Your task to perform on an android device: toggle show notifications on the lock screen Image 0: 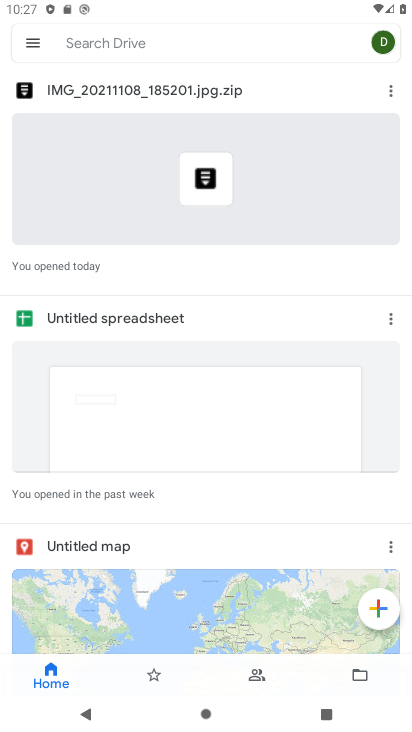
Step 0: press home button
Your task to perform on an android device: toggle show notifications on the lock screen Image 1: 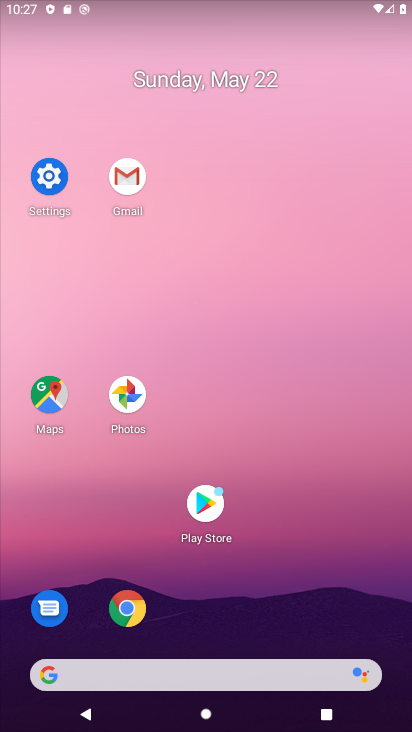
Step 1: click (50, 182)
Your task to perform on an android device: toggle show notifications on the lock screen Image 2: 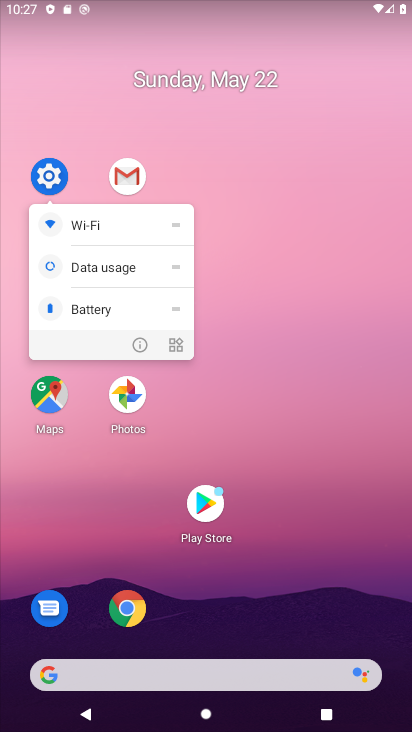
Step 2: click (49, 174)
Your task to perform on an android device: toggle show notifications on the lock screen Image 3: 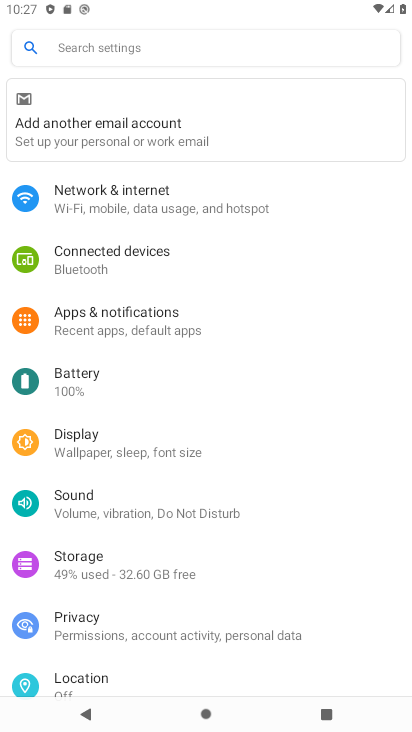
Step 3: click (198, 320)
Your task to perform on an android device: toggle show notifications on the lock screen Image 4: 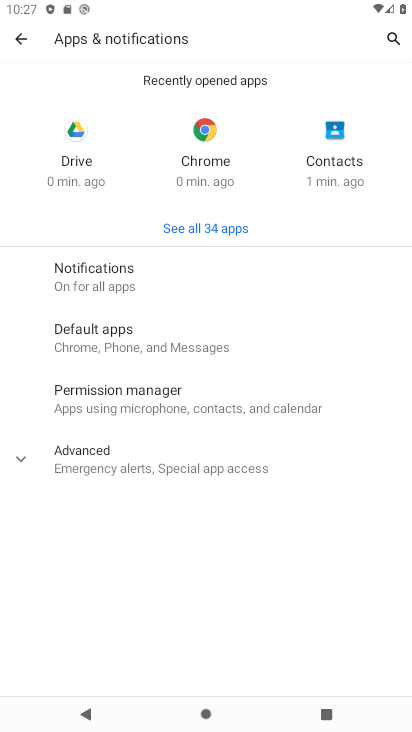
Step 4: click (127, 282)
Your task to perform on an android device: toggle show notifications on the lock screen Image 5: 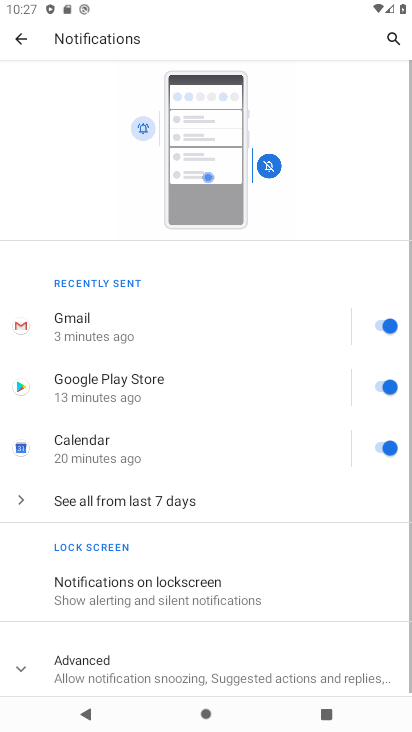
Step 5: drag from (176, 611) to (165, 260)
Your task to perform on an android device: toggle show notifications on the lock screen Image 6: 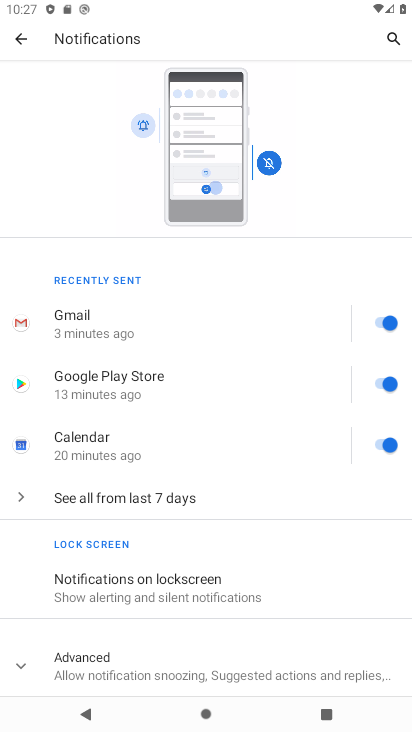
Step 6: click (148, 673)
Your task to perform on an android device: toggle show notifications on the lock screen Image 7: 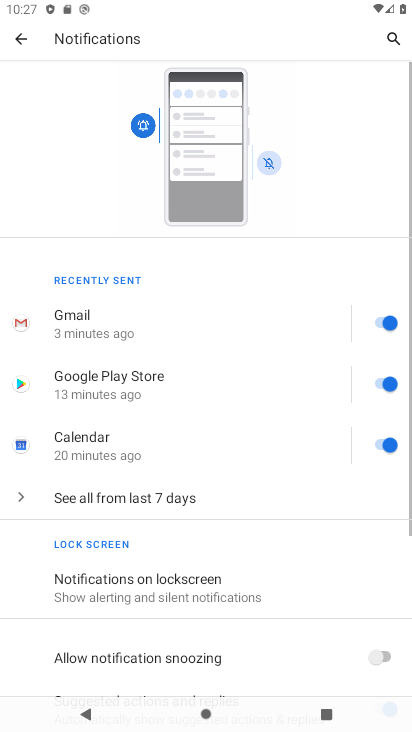
Step 7: drag from (154, 652) to (143, 263)
Your task to perform on an android device: toggle show notifications on the lock screen Image 8: 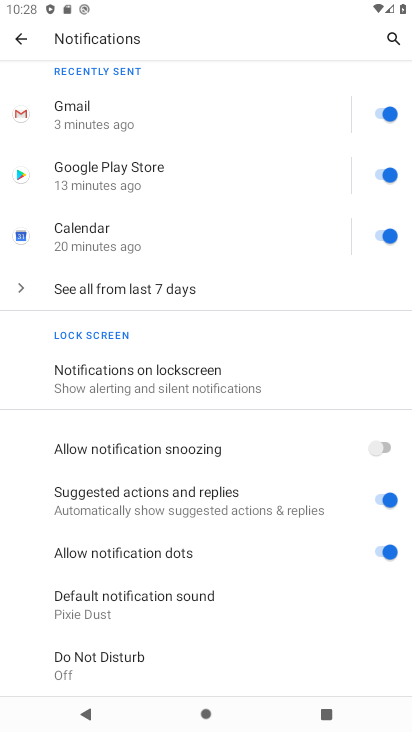
Step 8: click (170, 390)
Your task to perform on an android device: toggle show notifications on the lock screen Image 9: 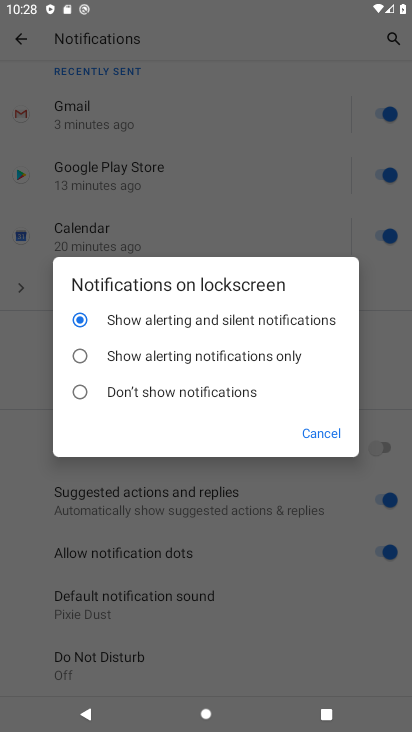
Step 9: click (160, 368)
Your task to perform on an android device: toggle show notifications on the lock screen Image 10: 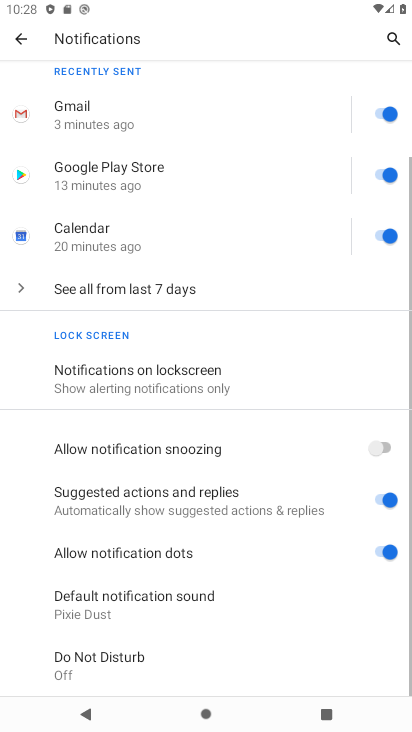
Step 10: task complete